Your task to perform on an android device: turn pop-ups on in chrome Image 0: 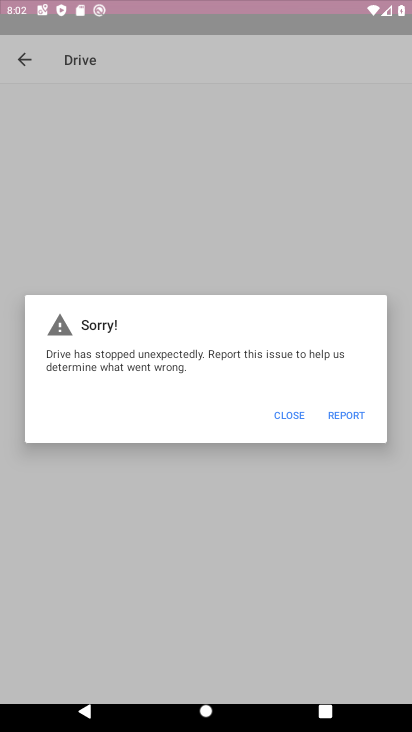
Step 0: click (123, 579)
Your task to perform on an android device: turn pop-ups on in chrome Image 1: 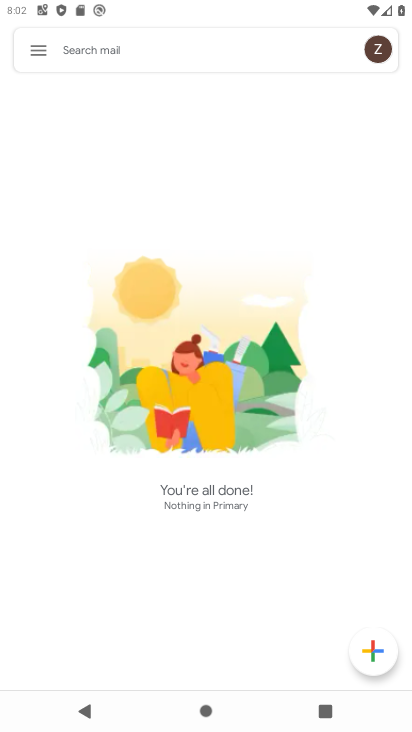
Step 1: task complete